Your task to perform on an android device: change notification settings in the gmail app Image 0: 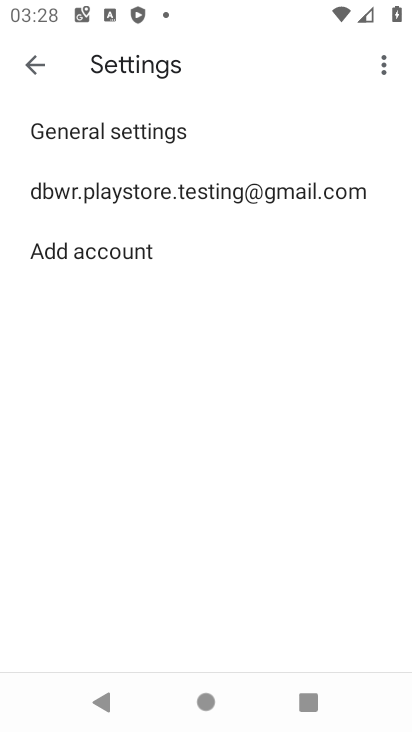
Step 0: press home button
Your task to perform on an android device: change notification settings in the gmail app Image 1: 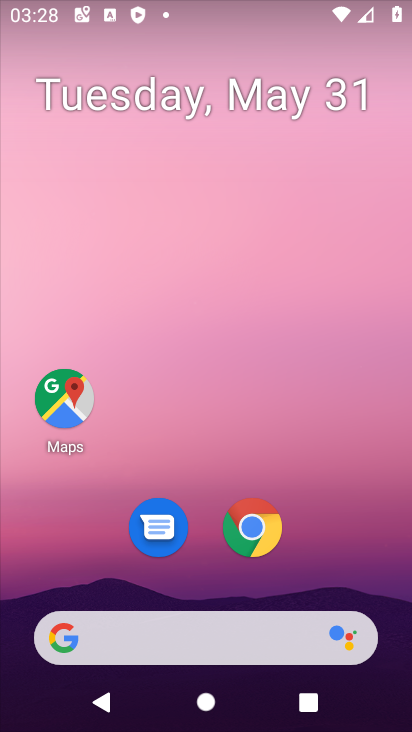
Step 1: drag from (389, 637) to (324, 122)
Your task to perform on an android device: change notification settings in the gmail app Image 2: 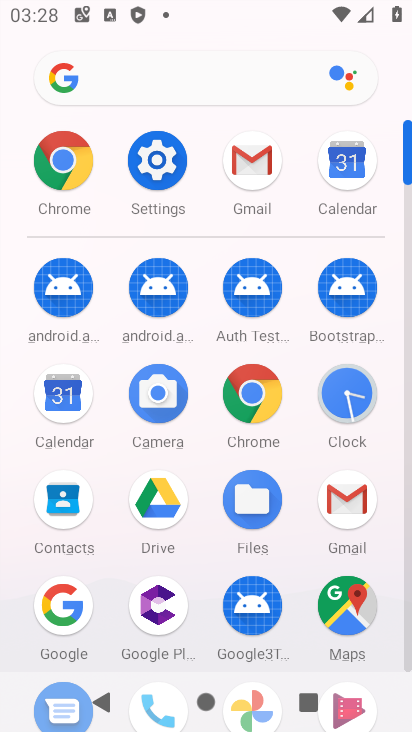
Step 2: click (409, 635)
Your task to perform on an android device: change notification settings in the gmail app Image 3: 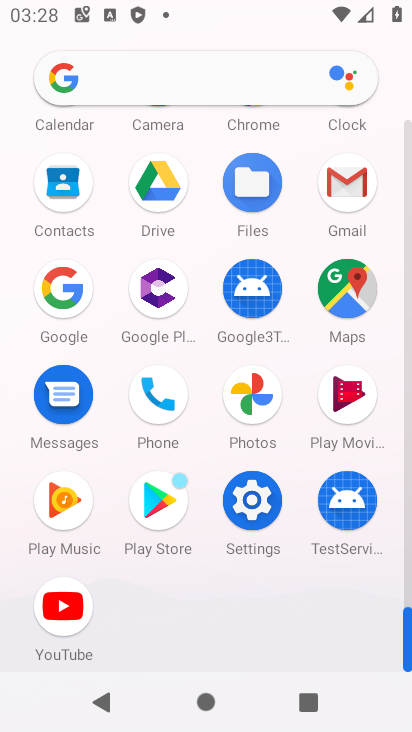
Step 3: click (346, 174)
Your task to perform on an android device: change notification settings in the gmail app Image 4: 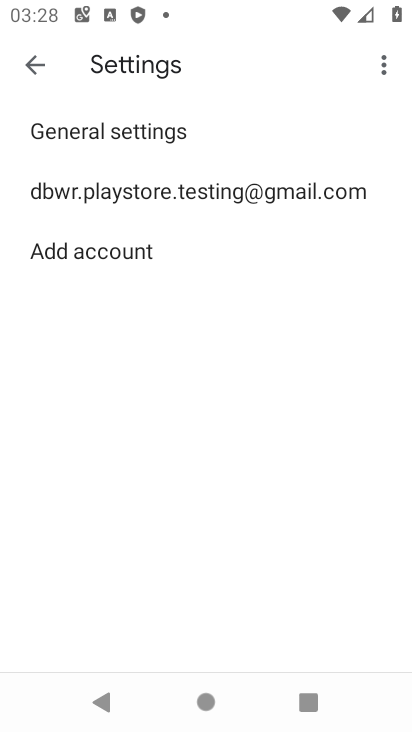
Step 4: click (134, 197)
Your task to perform on an android device: change notification settings in the gmail app Image 5: 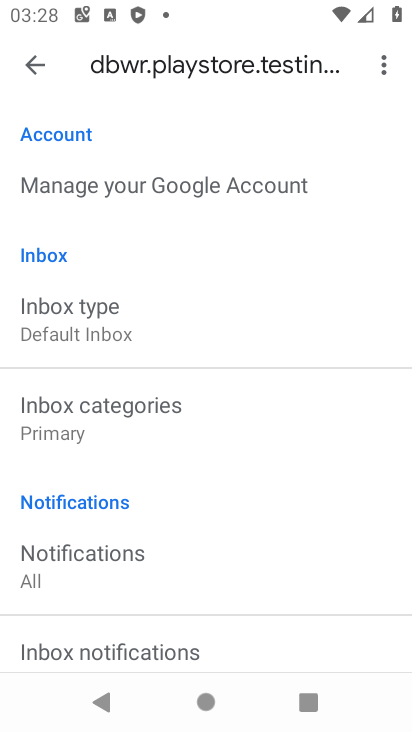
Step 5: drag from (152, 614) to (174, 137)
Your task to perform on an android device: change notification settings in the gmail app Image 6: 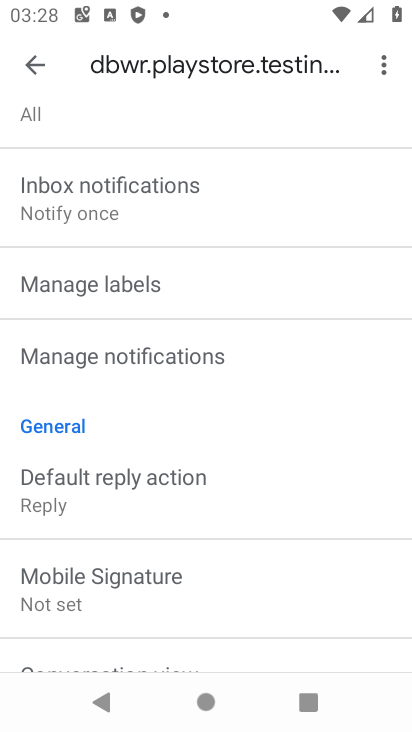
Step 6: click (119, 338)
Your task to perform on an android device: change notification settings in the gmail app Image 7: 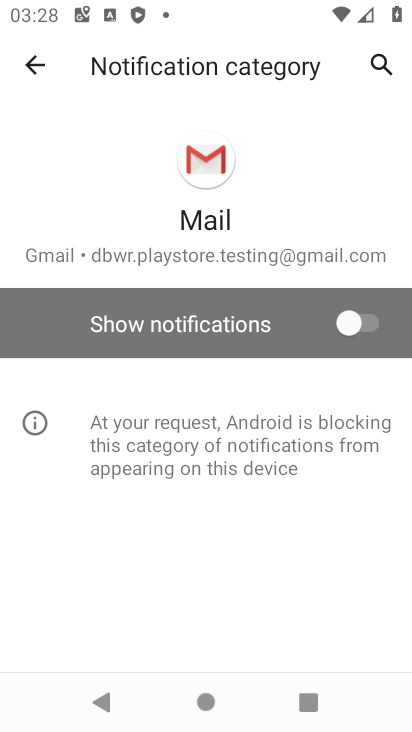
Step 7: click (365, 325)
Your task to perform on an android device: change notification settings in the gmail app Image 8: 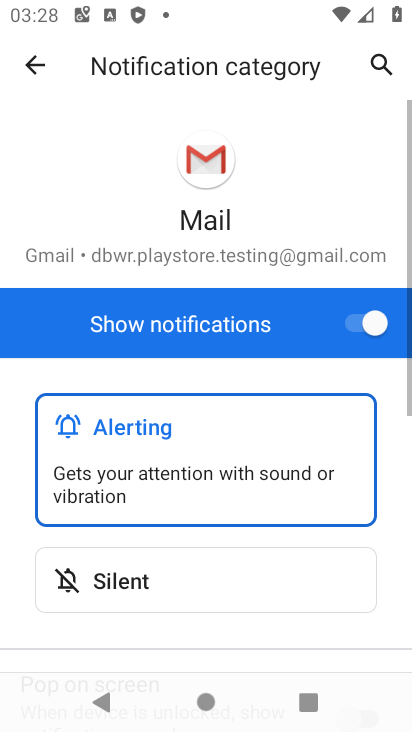
Step 8: task complete